Your task to perform on an android device: choose inbox layout in the gmail app Image 0: 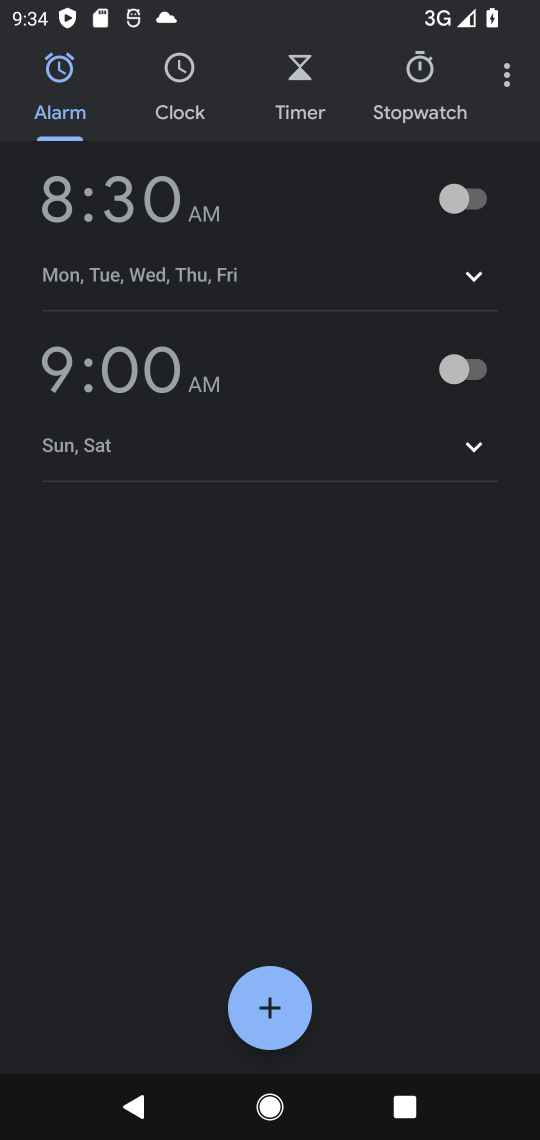
Step 0: press home button
Your task to perform on an android device: choose inbox layout in the gmail app Image 1: 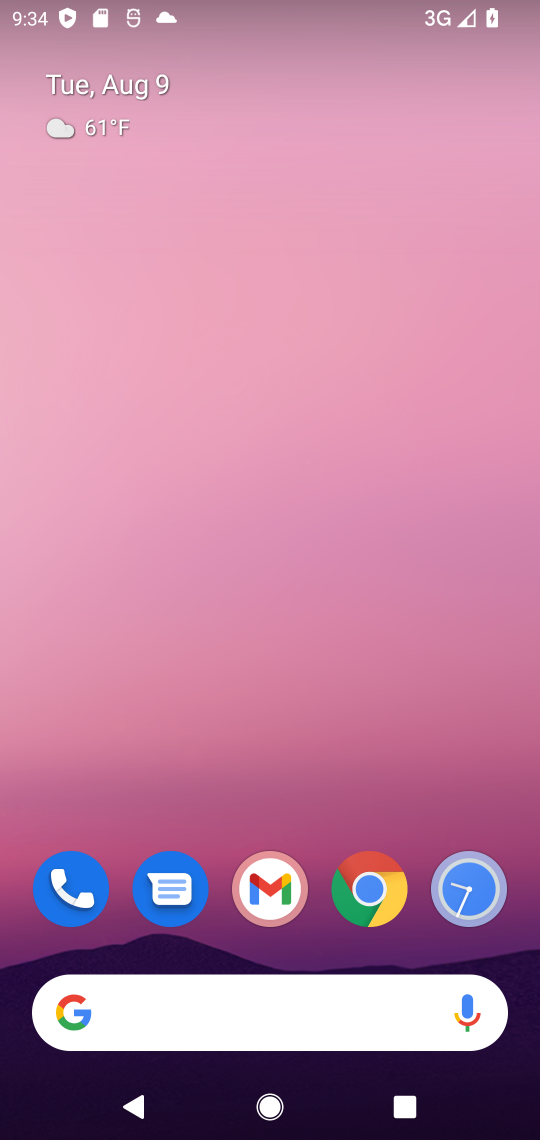
Step 1: drag from (270, 800) to (22, 284)
Your task to perform on an android device: choose inbox layout in the gmail app Image 2: 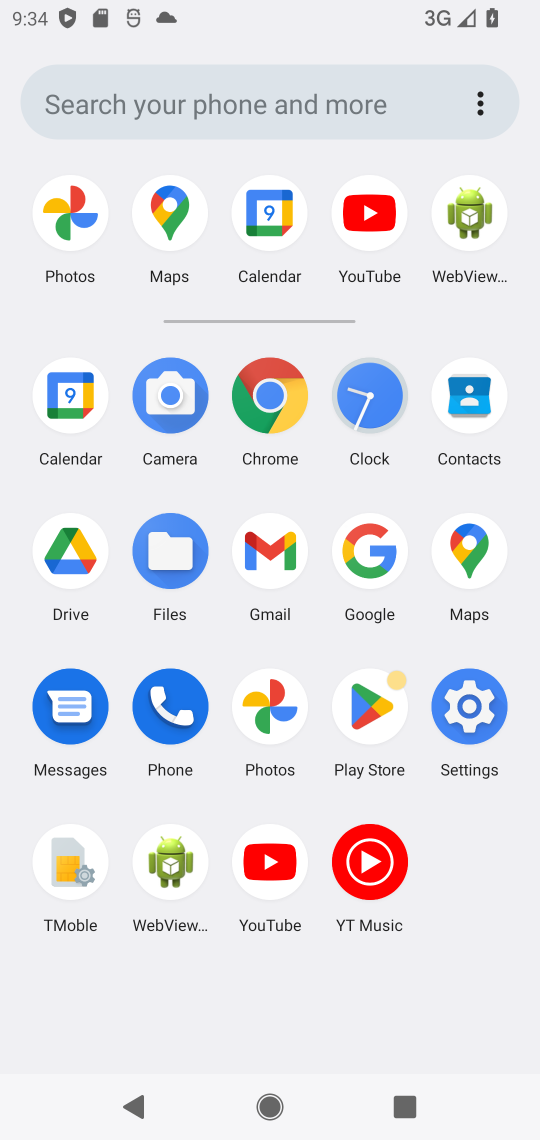
Step 2: click (276, 556)
Your task to perform on an android device: choose inbox layout in the gmail app Image 3: 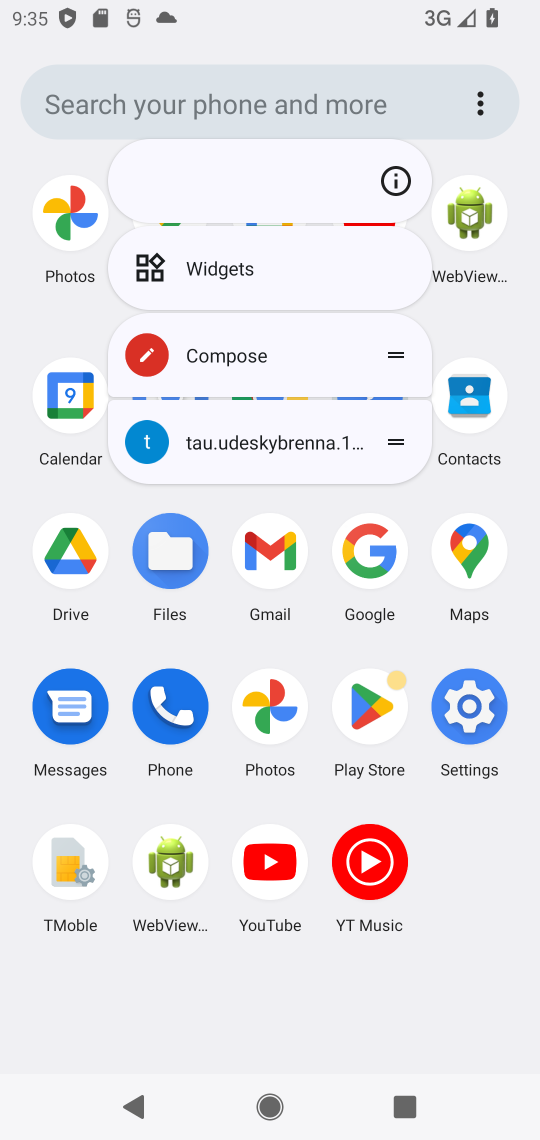
Step 3: click (256, 571)
Your task to perform on an android device: choose inbox layout in the gmail app Image 4: 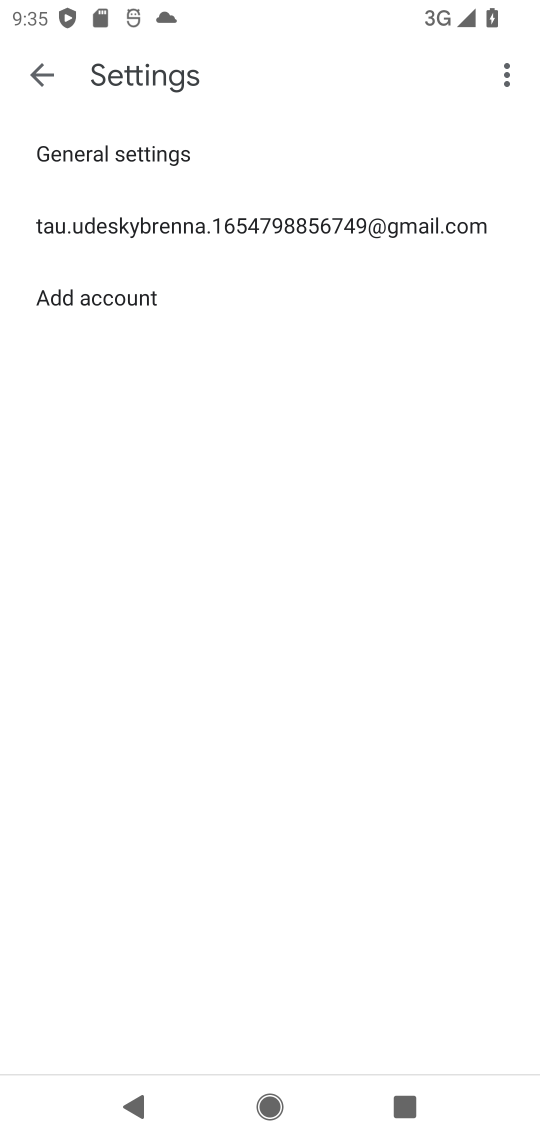
Step 4: click (36, 97)
Your task to perform on an android device: choose inbox layout in the gmail app Image 5: 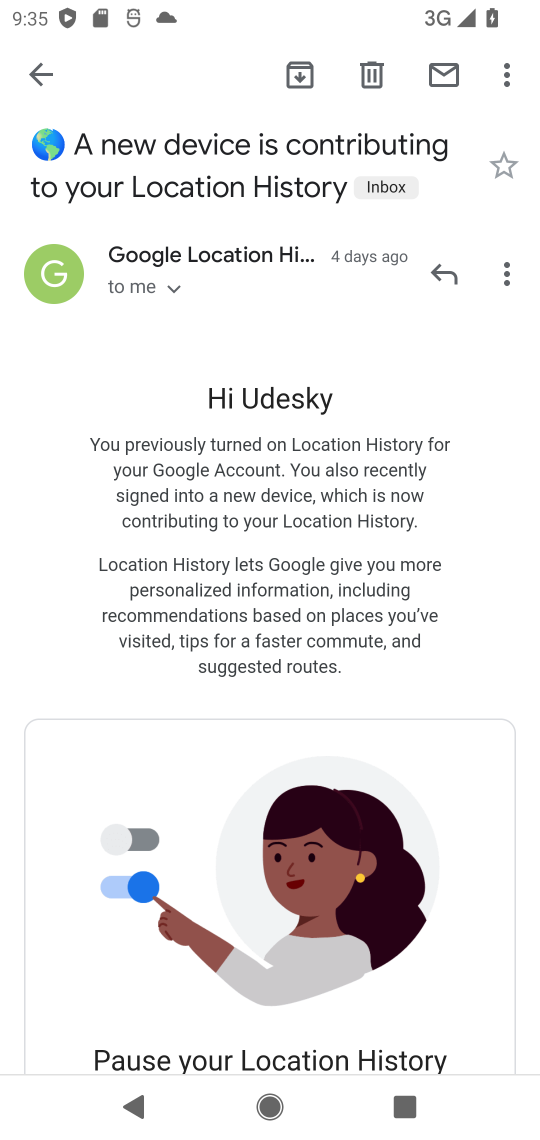
Step 5: click (32, 88)
Your task to perform on an android device: choose inbox layout in the gmail app Image 6: 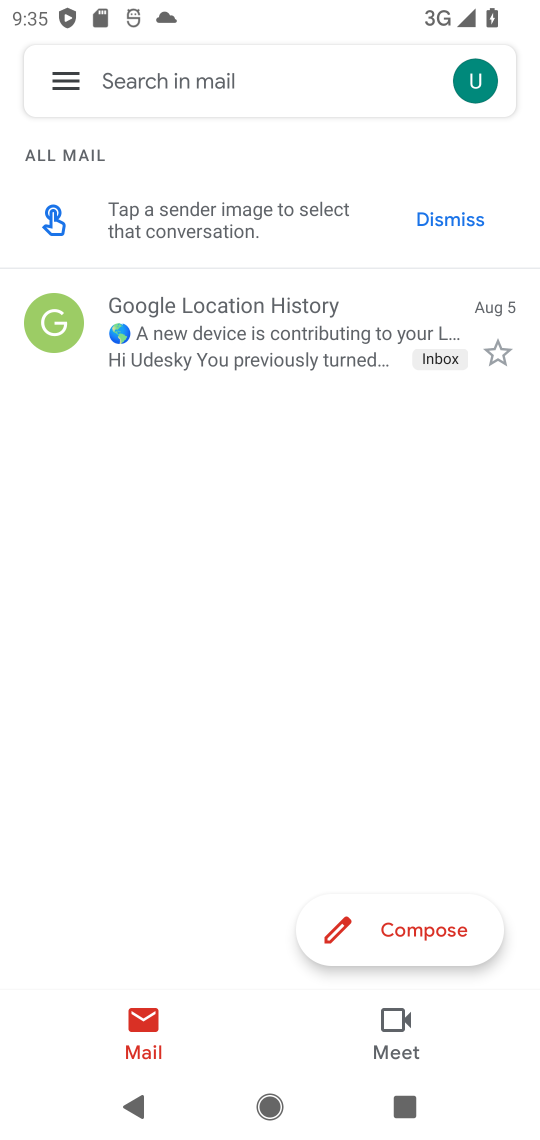
Step 6: click (60, 45)
Your task to perform on an android device: choose inbox layout in the gmail app Image 7: 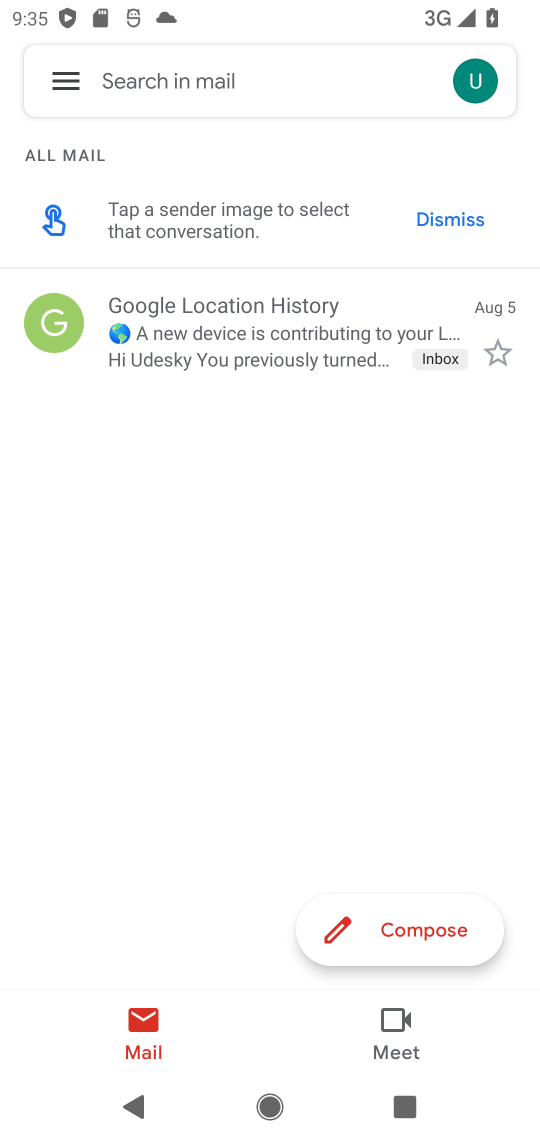
Step 7: click (57, 79)
Your task to perform on an android device: choose inbox layout in the gmail app Image 8: 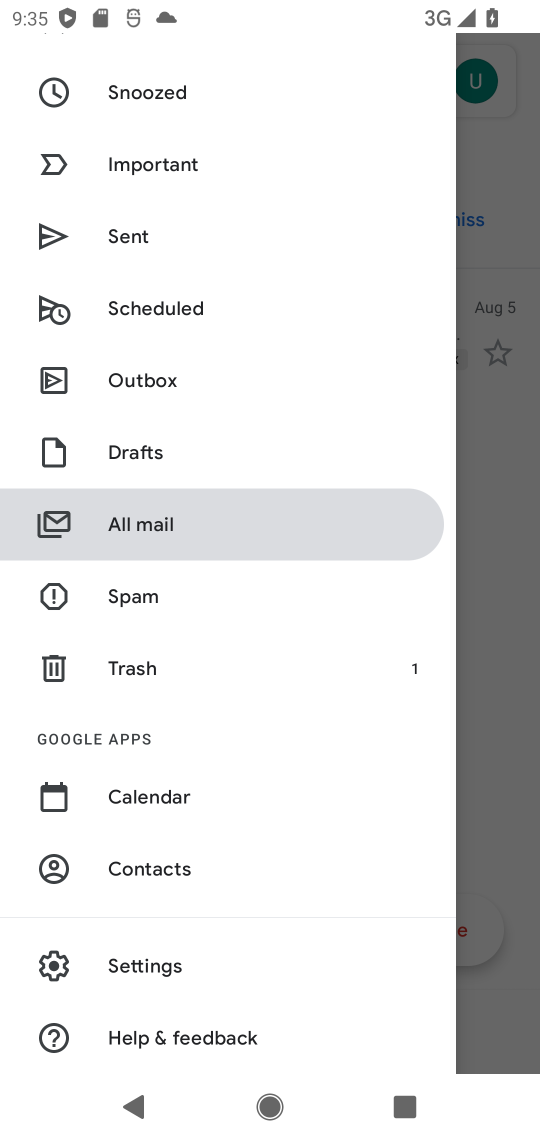
Step 8: drag from (210, 1025) to (404, 55)
Your task to perform on an android device: choose inbox layout in the gmail app Image 9: 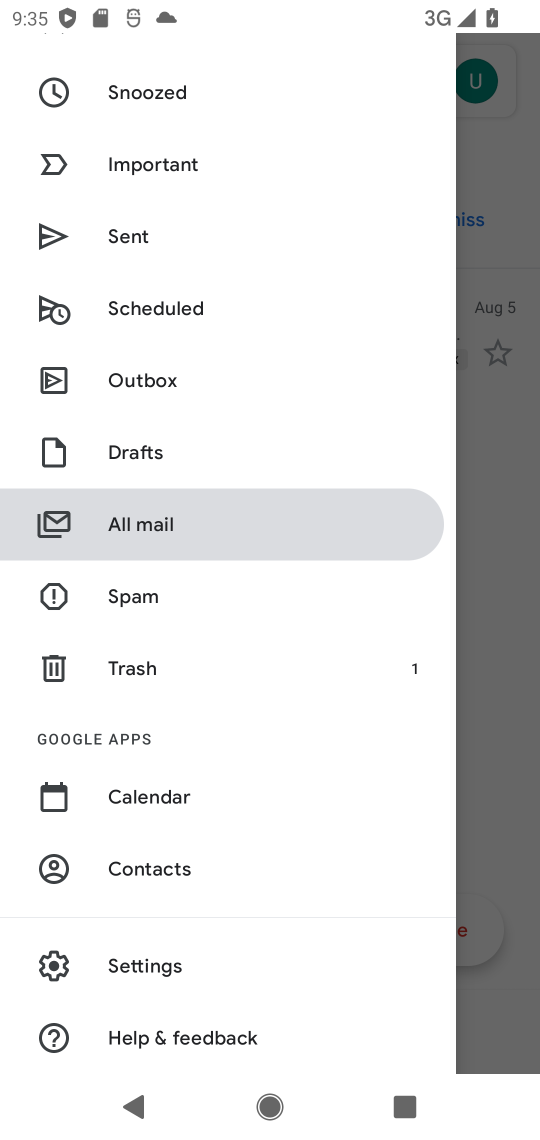
Step 9: drag from (158, 900) to (317, 179)
Your task to perform on an android device: choose inbox layout in the gmail app Image 10: 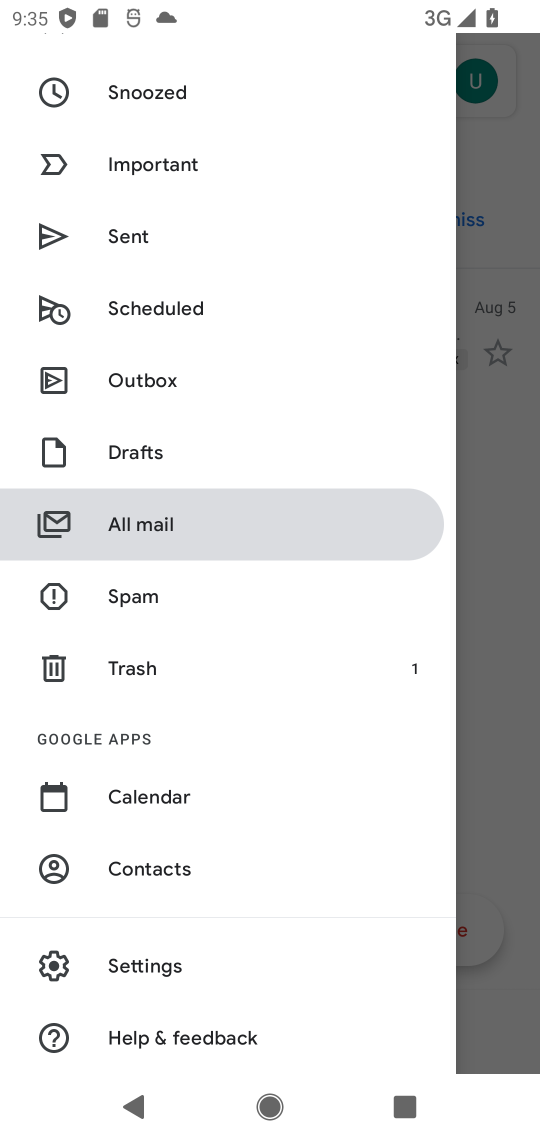
Step 10: click (150, 965)
Your task to perform on an android device: choose inbox layout in the gmail app Image 11: 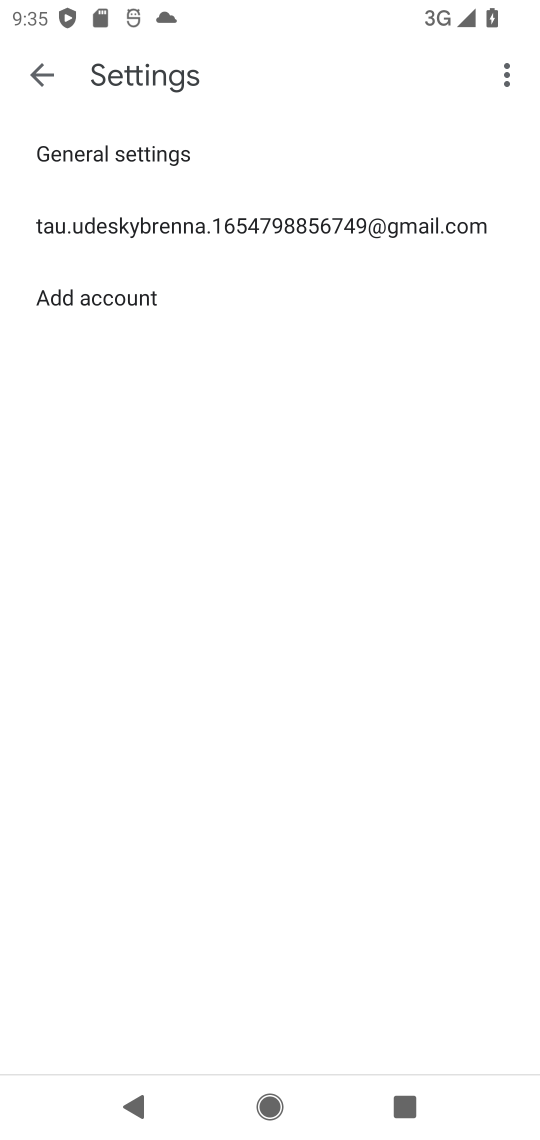
Step 11: click (120, 225)
Your task to perform on an android device: choose inbox layout in the gmail app Image 12: 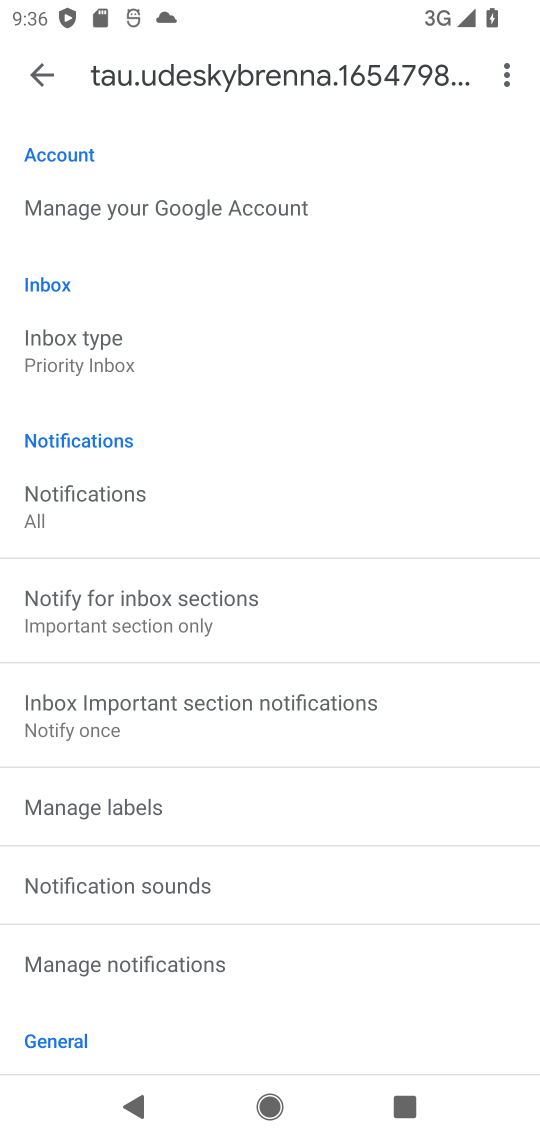
Step 12: click (37, 367)
Your task to perform on an android device: choose inbox layout in the gmail app Image 13: 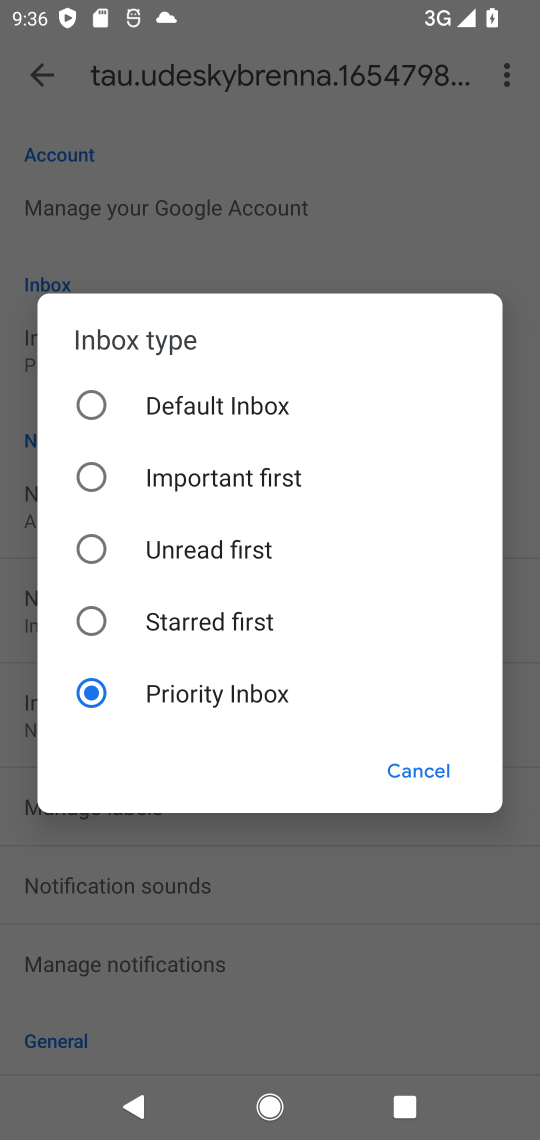
Step 13: click (172, 553)
Your task to perform on an android device: choose inbox layout in the gmail app Image 14: 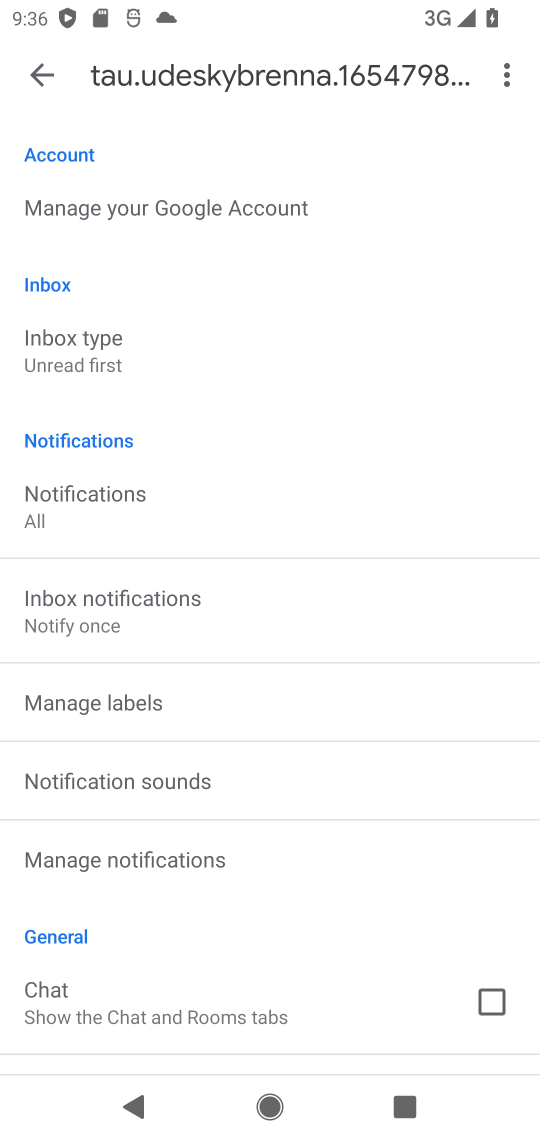
Step 14: task complete